Your task to perform on an android device: Go to wifi settings Image 0: 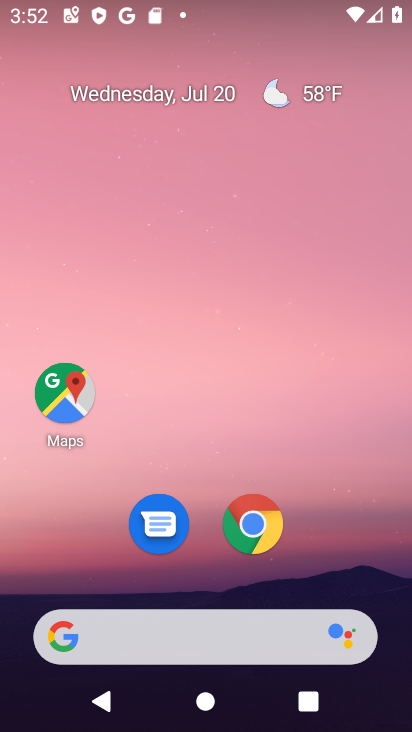
Step 0: drag from (308, 508) to (313, 24)
Your task to perform on an android device: Go to wifi settings Image 1: 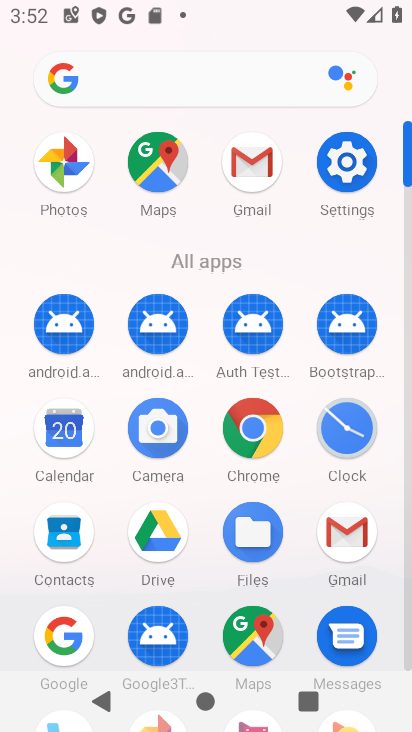
Step 1: click (337, 168)
Your task to perform on an android device: Go to wifi settings Image 2: 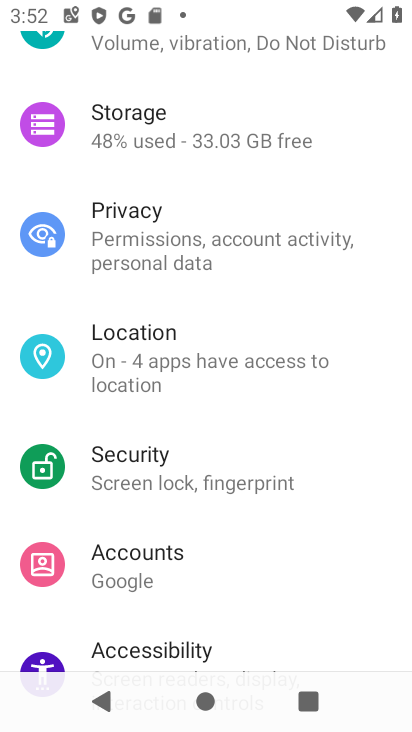
Step 2: drag from (236, 186) to (232, 677)
Your task to perform on an android device: Go to wifi settings Image 3: 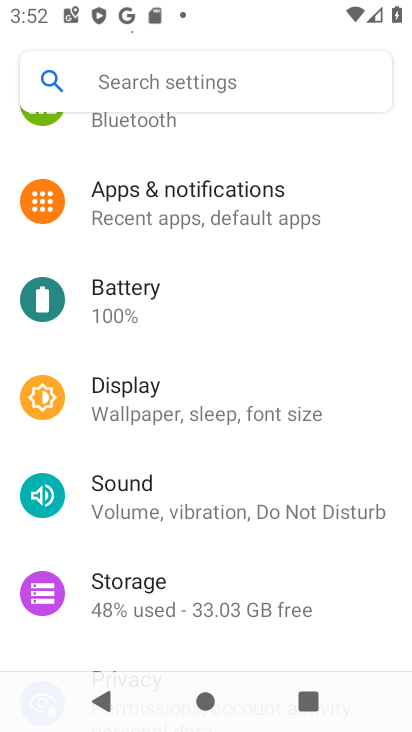
Step 3: drag from (231, 161) to (234, 523)
Your task to perform on an android device: Go to wifi settings Image 4: 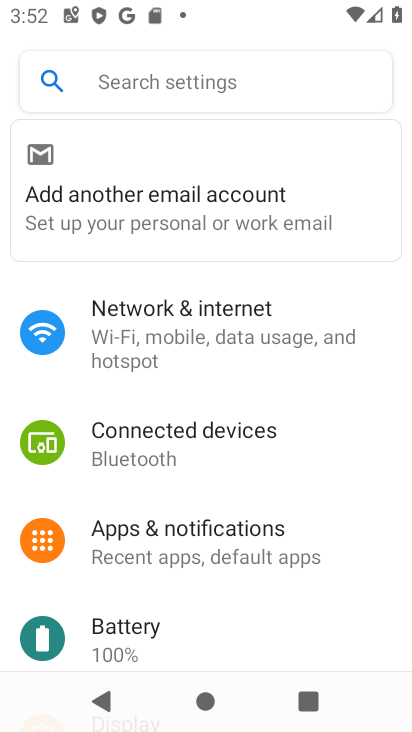
Step 4: click (225, 323)
Your task to perform on an android device: Go to wifi settings Image 5: 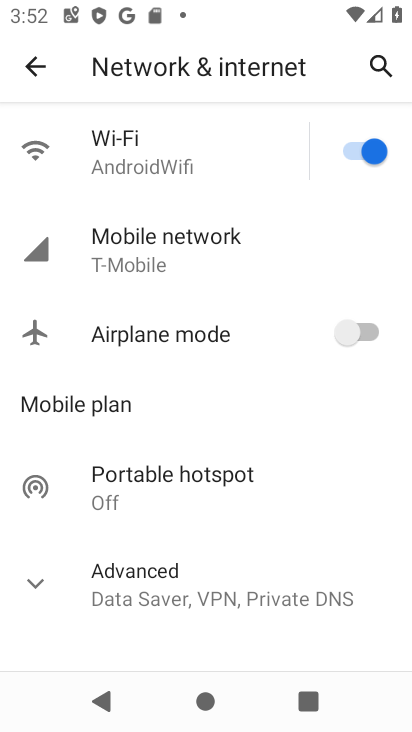
Step 5: click (160, 163)
Your task to perform on an android device: Go to wifi settings Image 6: 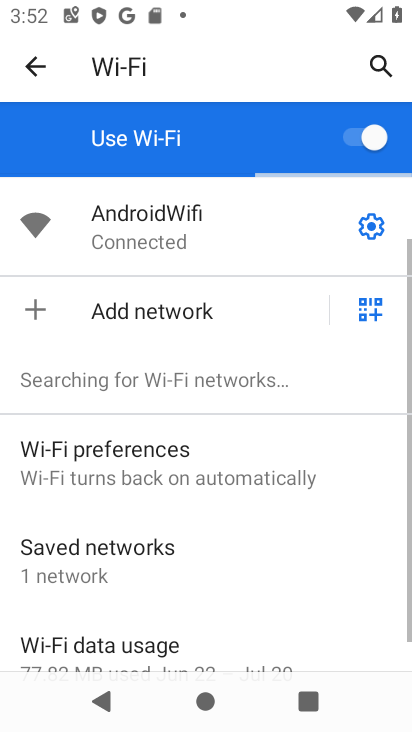
Step 6: task complete